Your task to perform on an android device: Open my contact list Image 0: 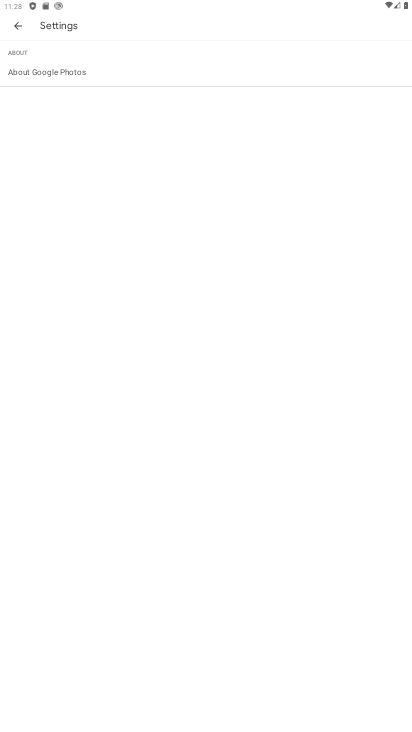
Step 0: press home button
Your task to perform on an android device: Open my contact list Image 1: 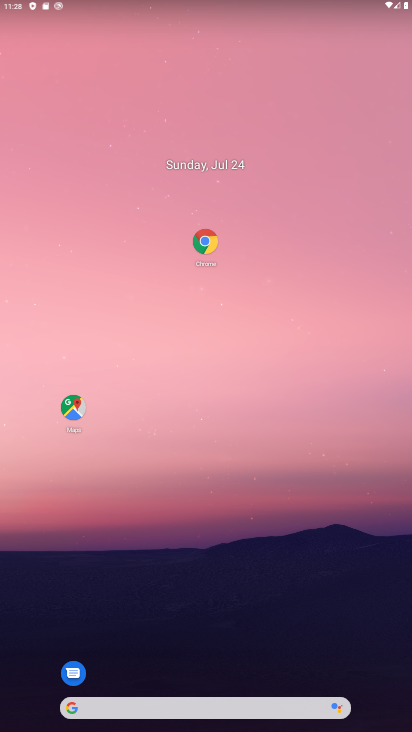
Step 1: click (409, 143)
Your task to perform on an android device: Open my contact list Image 2: 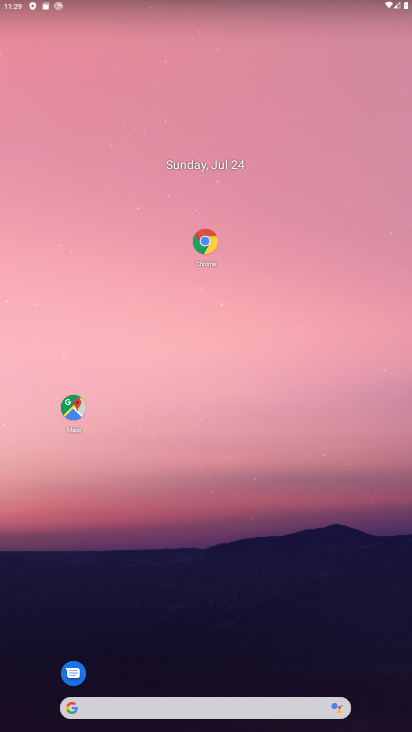
Step 2: drag from (209, 672) to (241, 60)
Your task to perform on an android device: Open my contact list Image 3: 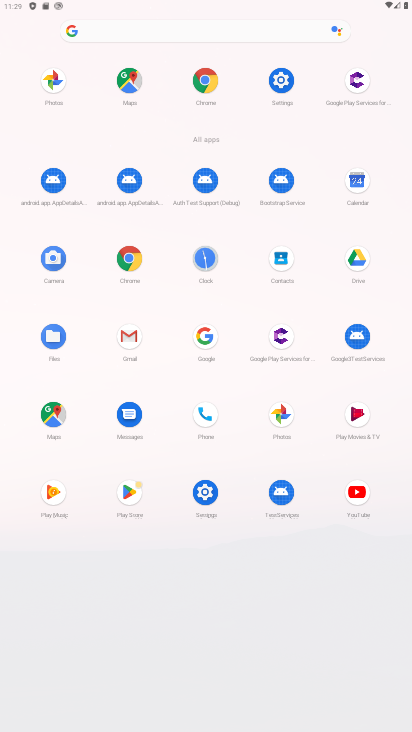
Step 3: click (283, 263)
Your task to perform on an android device: Open my contact list Image 4: 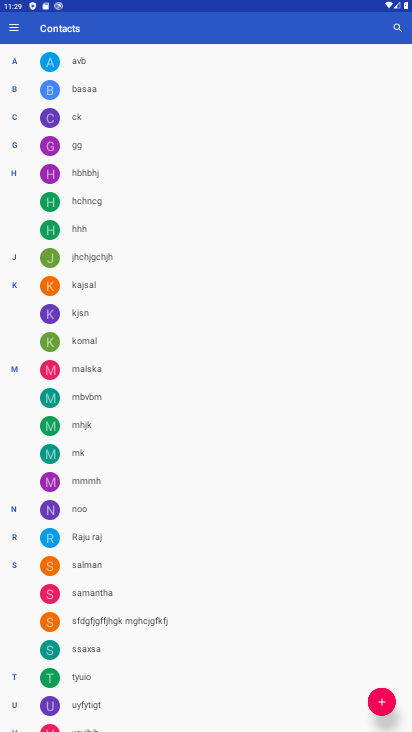
Step 4: task complete